Your task to perform on an android device: Go to notification settings Image 0: 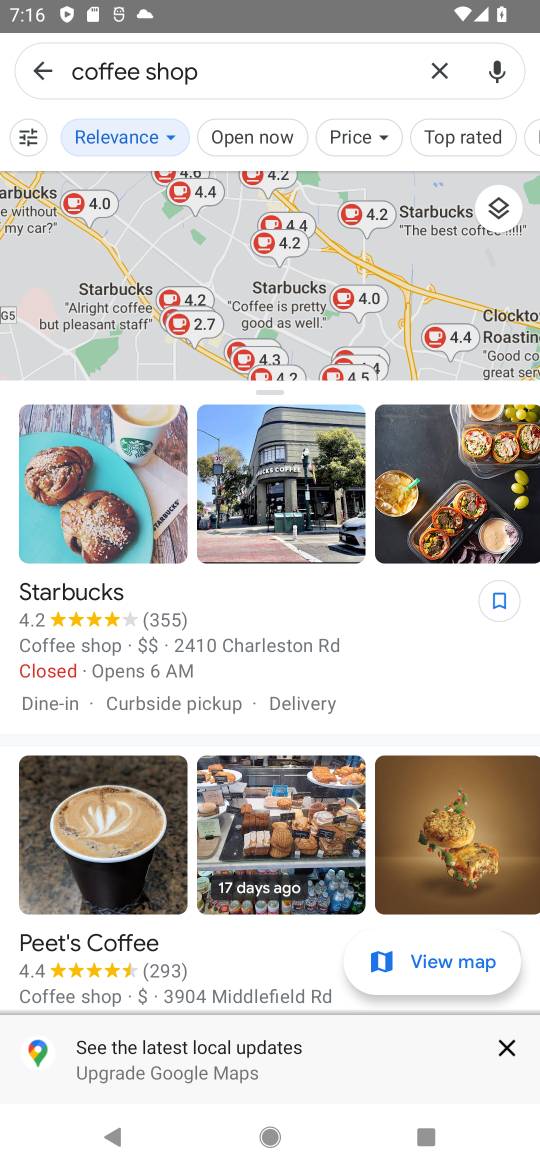
Step 0: press home button
Your task to perform on an android device: Go to notification settings Image 1: 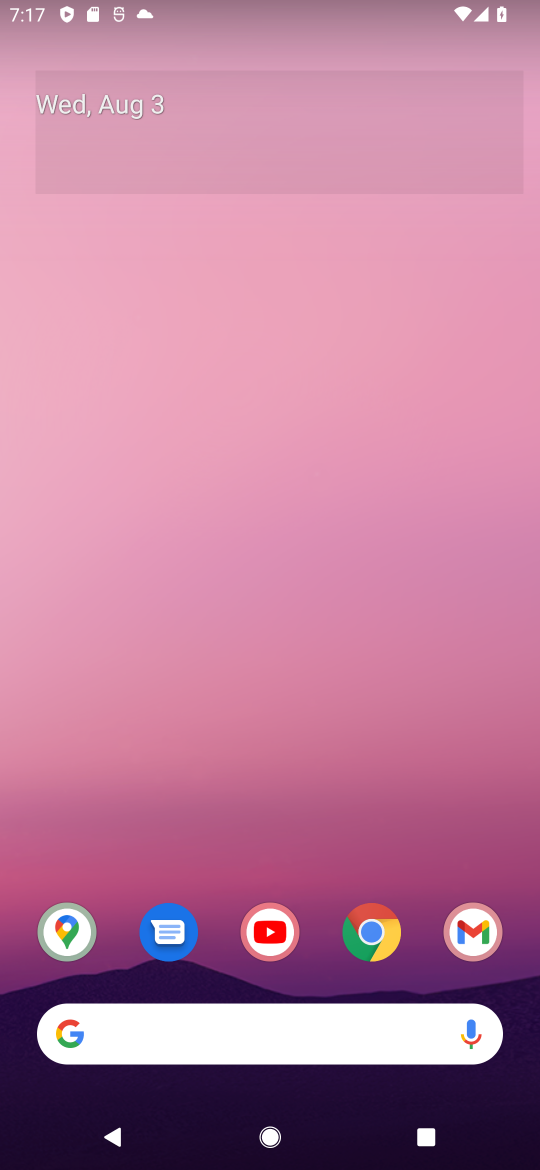
Step 1: drag from (144, 725) to (228, 140)
Your task to perform on an android device: Go to notification settings Image 2: 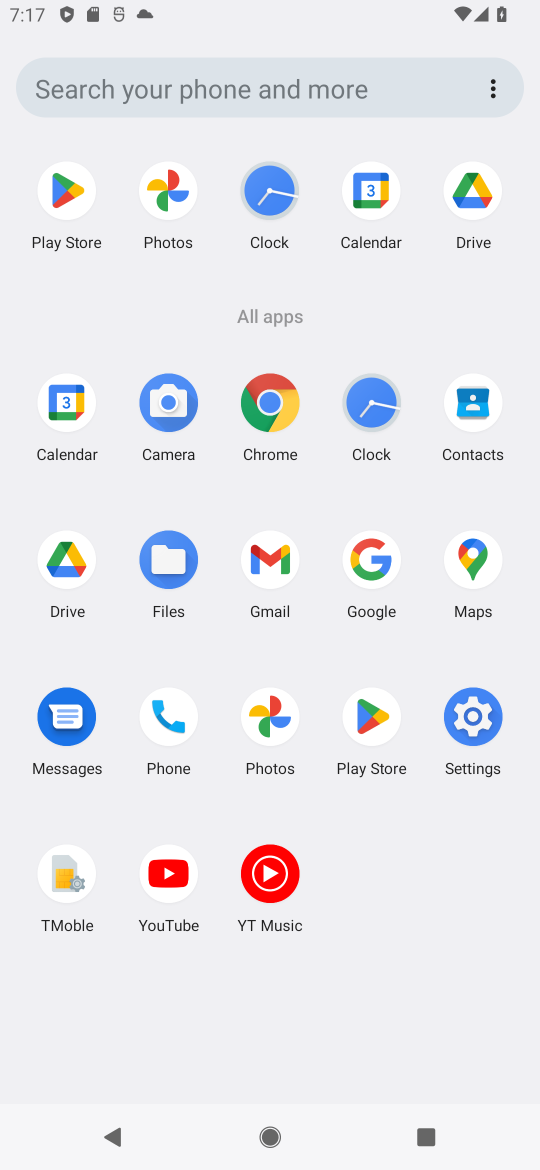
Step 2: click (488, 719)
Your task to perform on an android device: Go to notification settings Image 3: 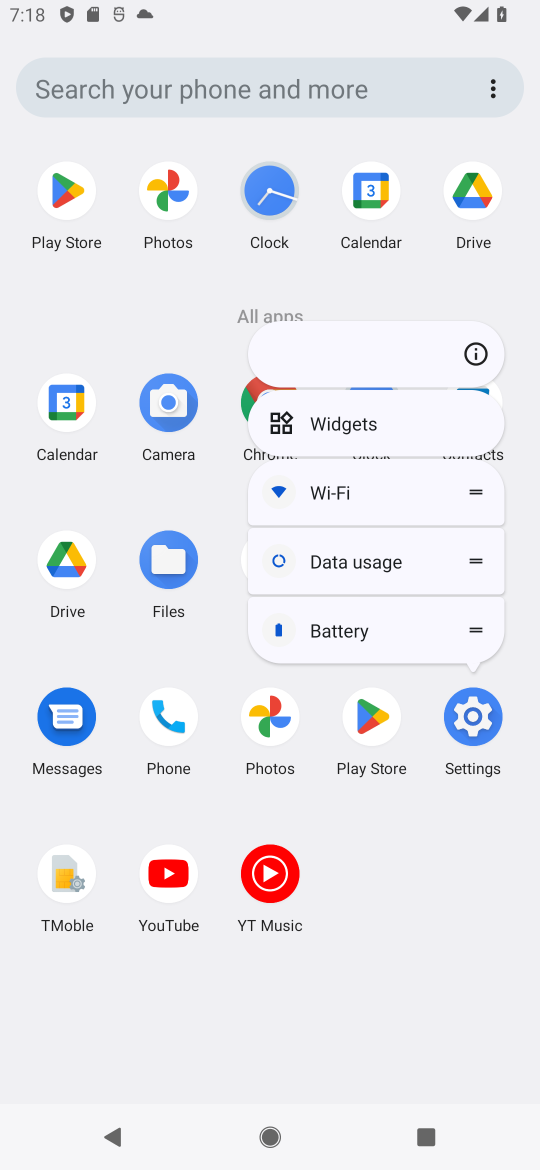
Step 3: click (461, 710)
Your task to perform on an android device: Go to notification settings Image 4: 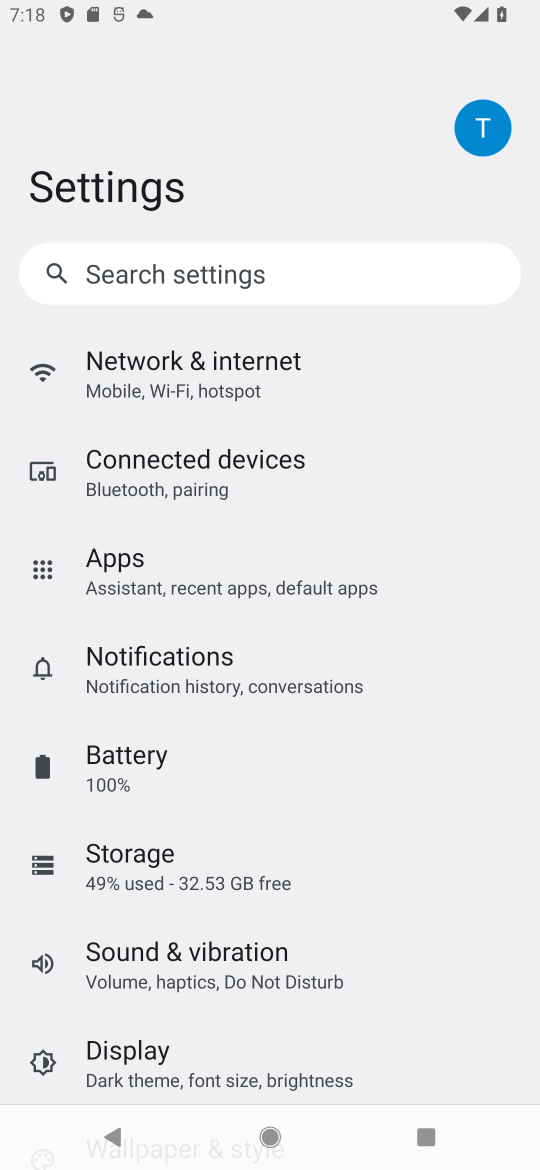
Step 4: click (253, 658)
Your task to perform on an android device: Go to notification settings Image 5: 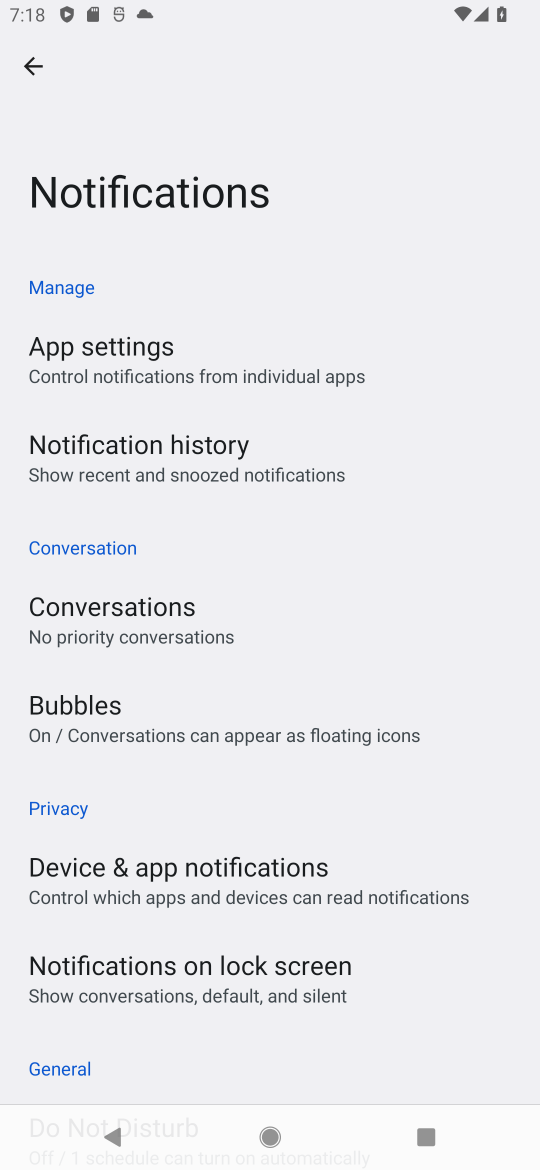
Step 5: task complete